Your task to perform on an android device: Open Reddit.com Image 0: 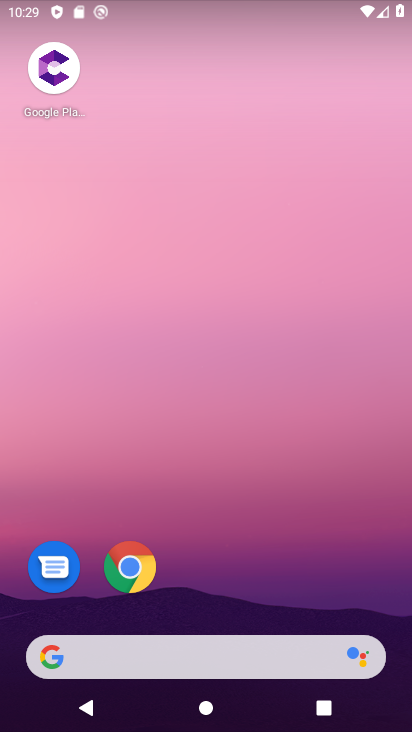
Step 0: click (148, 575)
Your task to perform on an android device: Open Reddit.com Image 1: 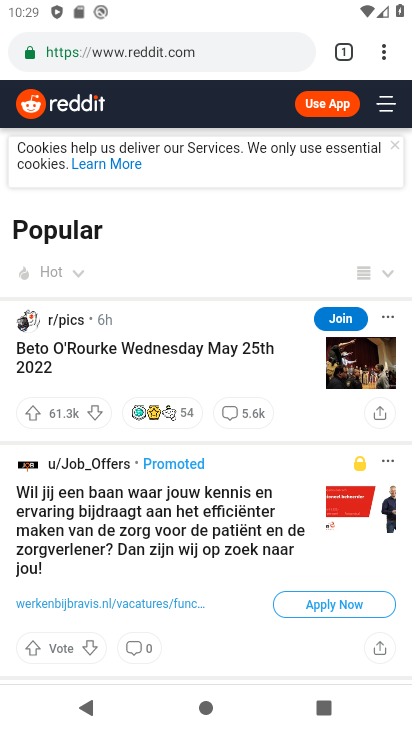
Step 1: task complete